Your task to perform on an android device: set an alarm Image 0: 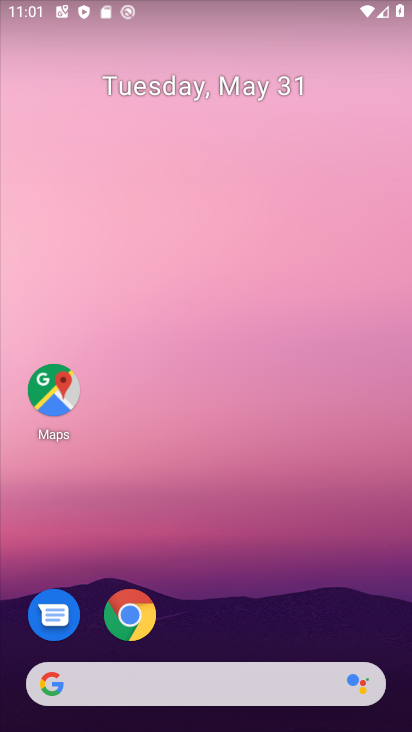
Step 0: drag from (354, 639) to (276, 382)
Your task to perform on an android device: set an alarm Image 1: 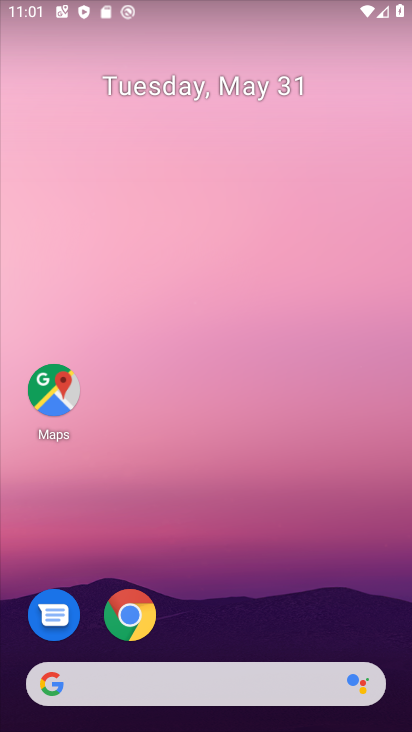
Step 1: task complete